Your task to perform on an android device: Search for razer nari on target.com, select the first entry, add it to the cart, then select checkout. Image 0: 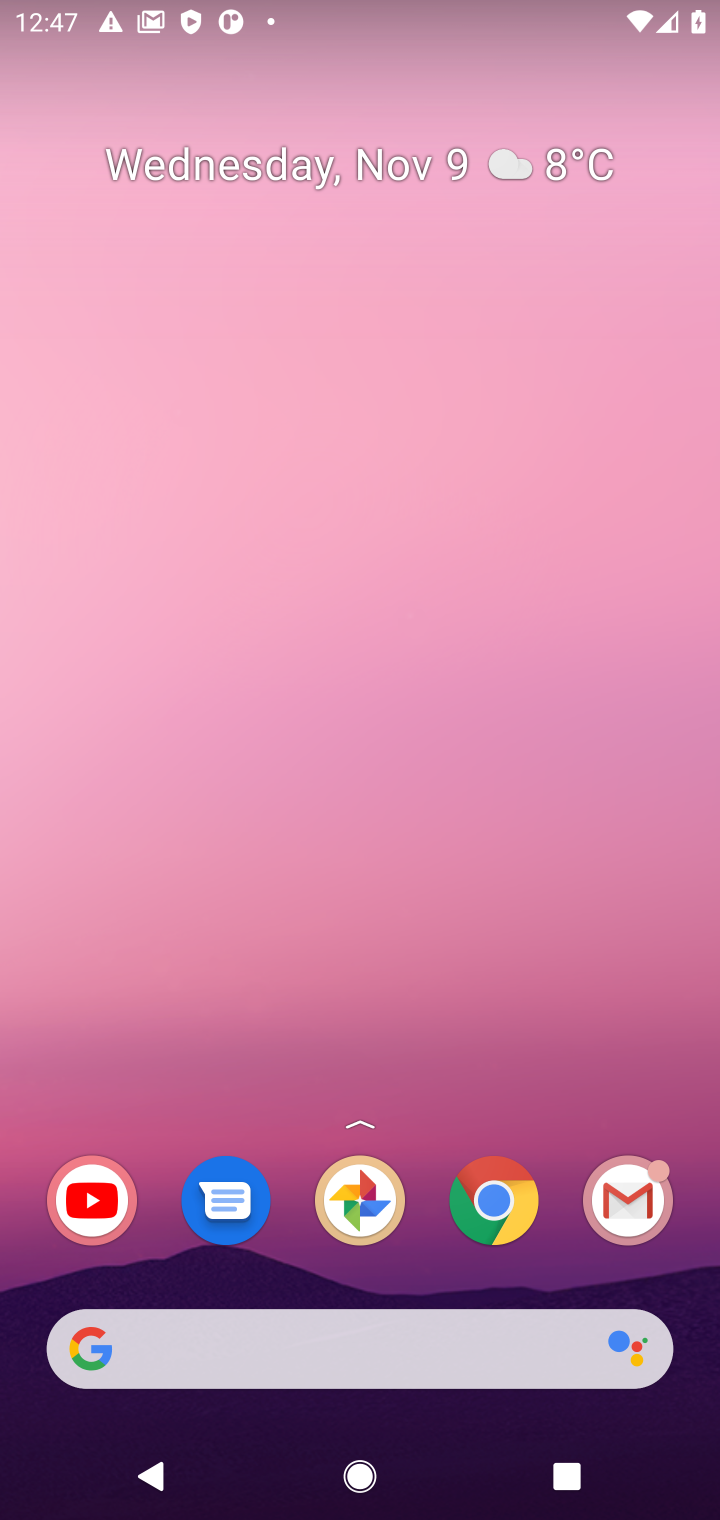
Step 0: click (423, 1364)
Your task to perform on an android device: Search for razer nari on target.com, select the first entry, add it to the cart, then select checkout. Image 1: 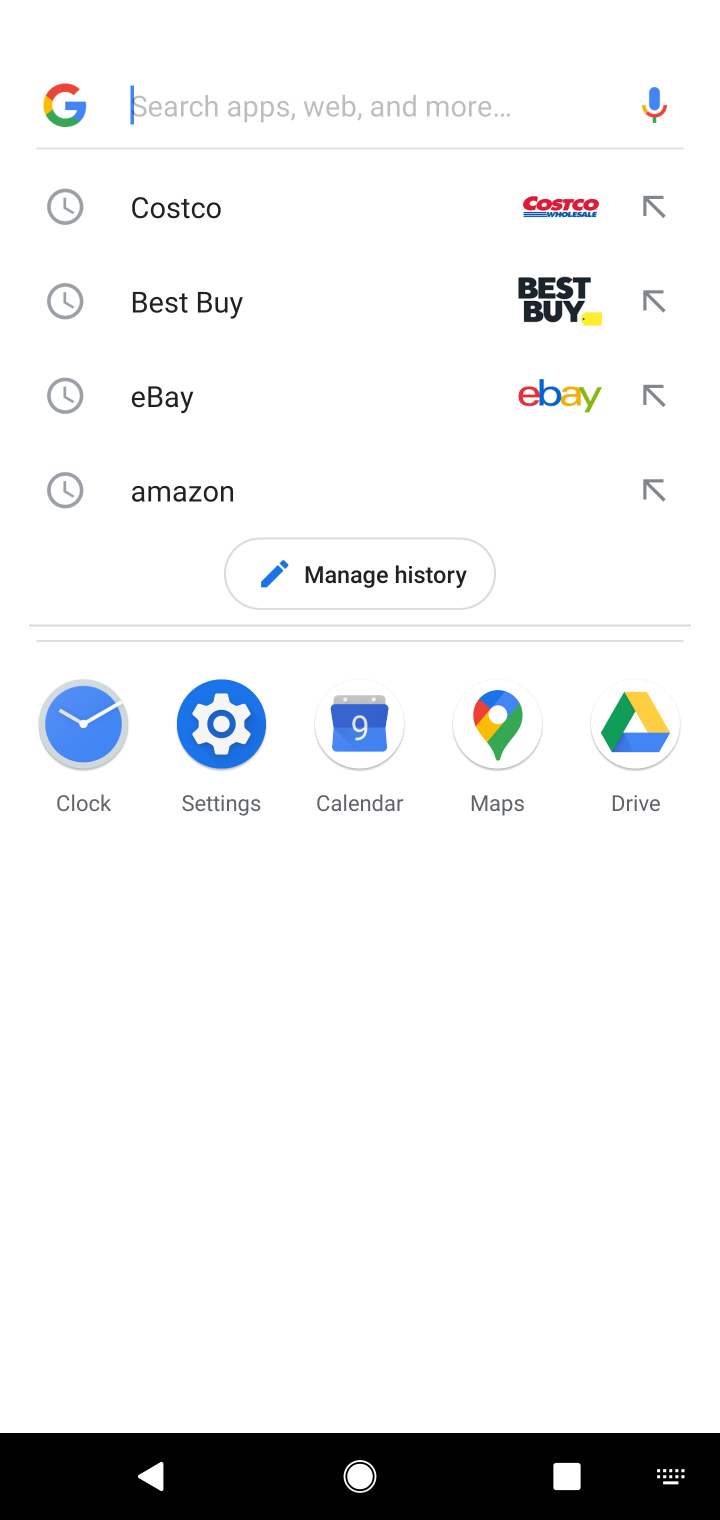
Step 1: type "target"
Your task to perform on an android device: Search for razer nari on target.com, select the first entry, add it to the cart, then select checkout. Image 2: 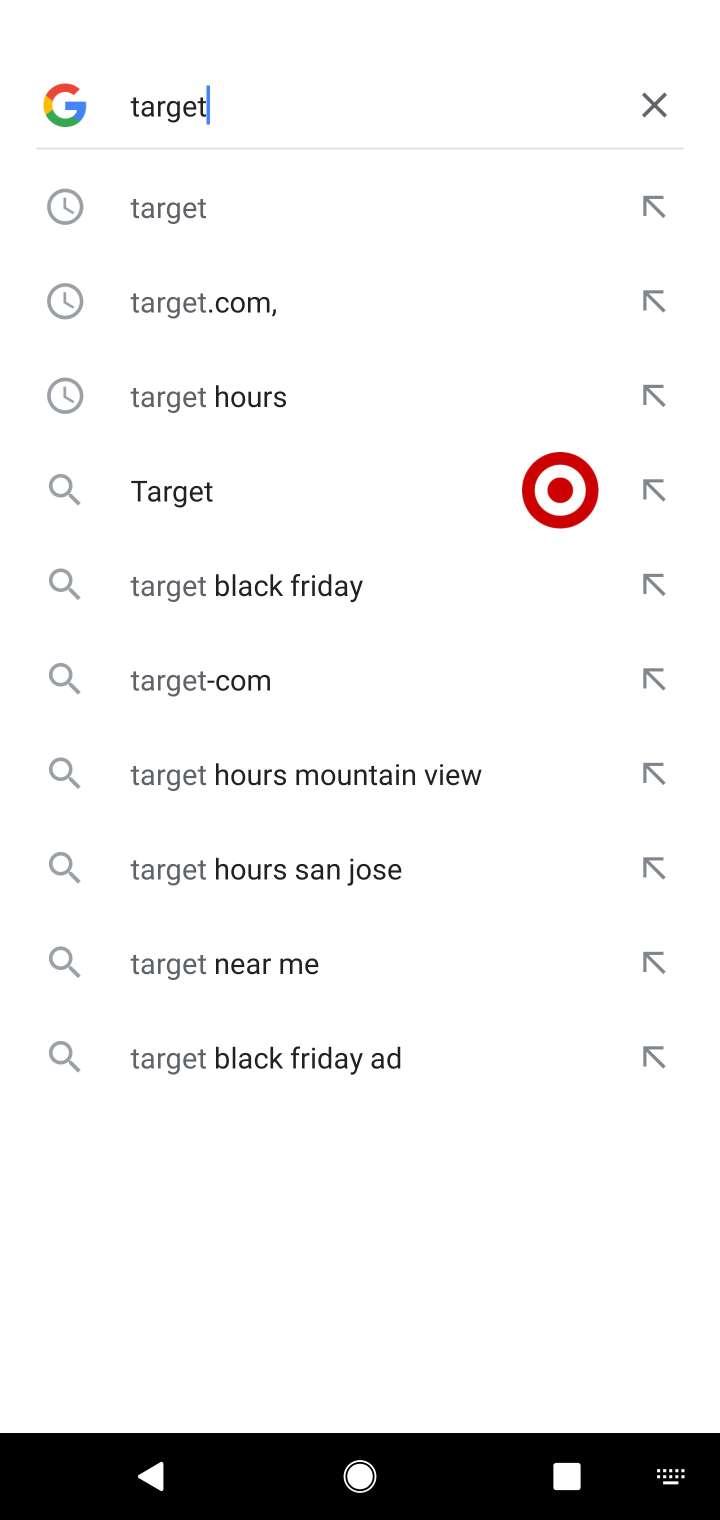
Step 2: click (209, 212)
Your task to perform on an android device: Search for razer nari on target.com, select the first entry, add it to the cart, then select checkout. Image 3: 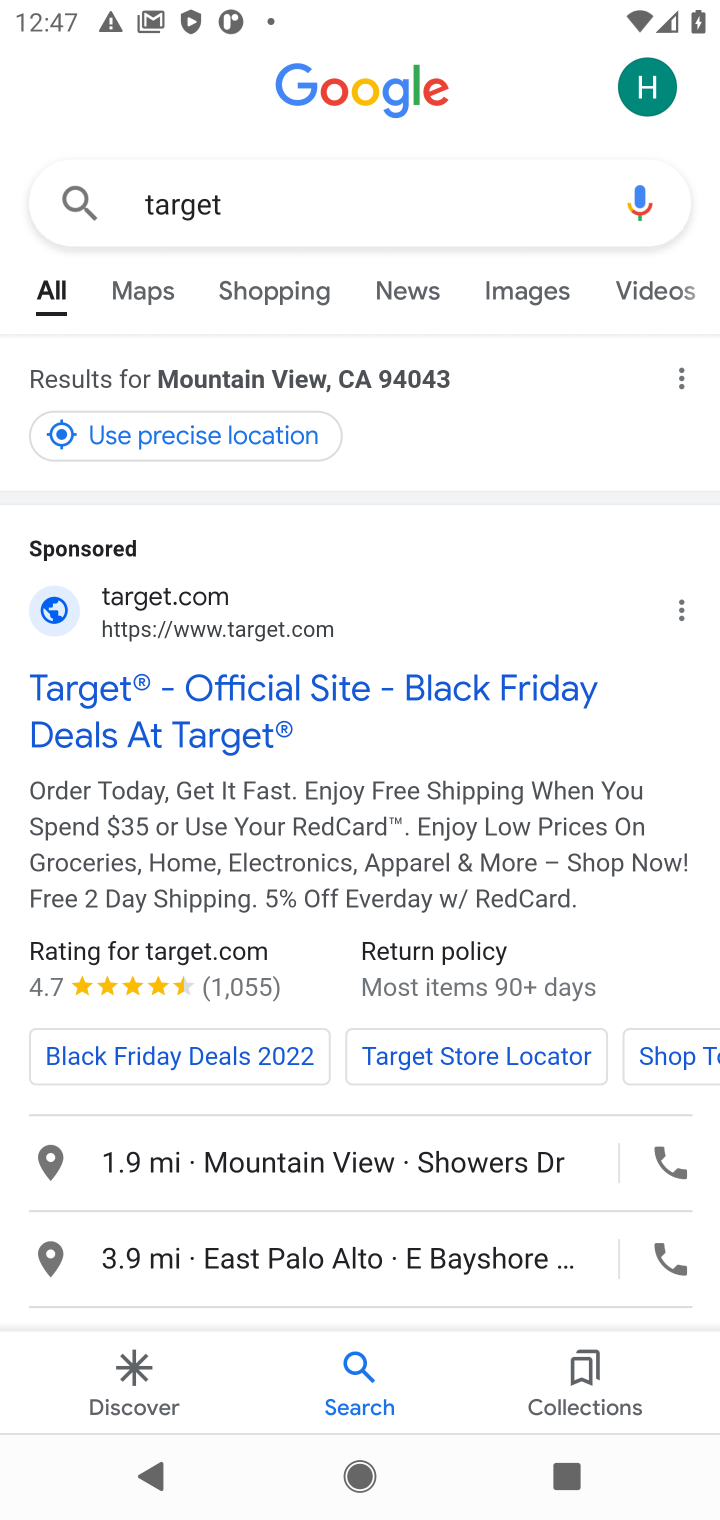
Step 3: click (138, 660)
Your task to perform on an android device: Search for razer nari on target.com, select the first entry, add it to the cart, then select checkout. Image 4: 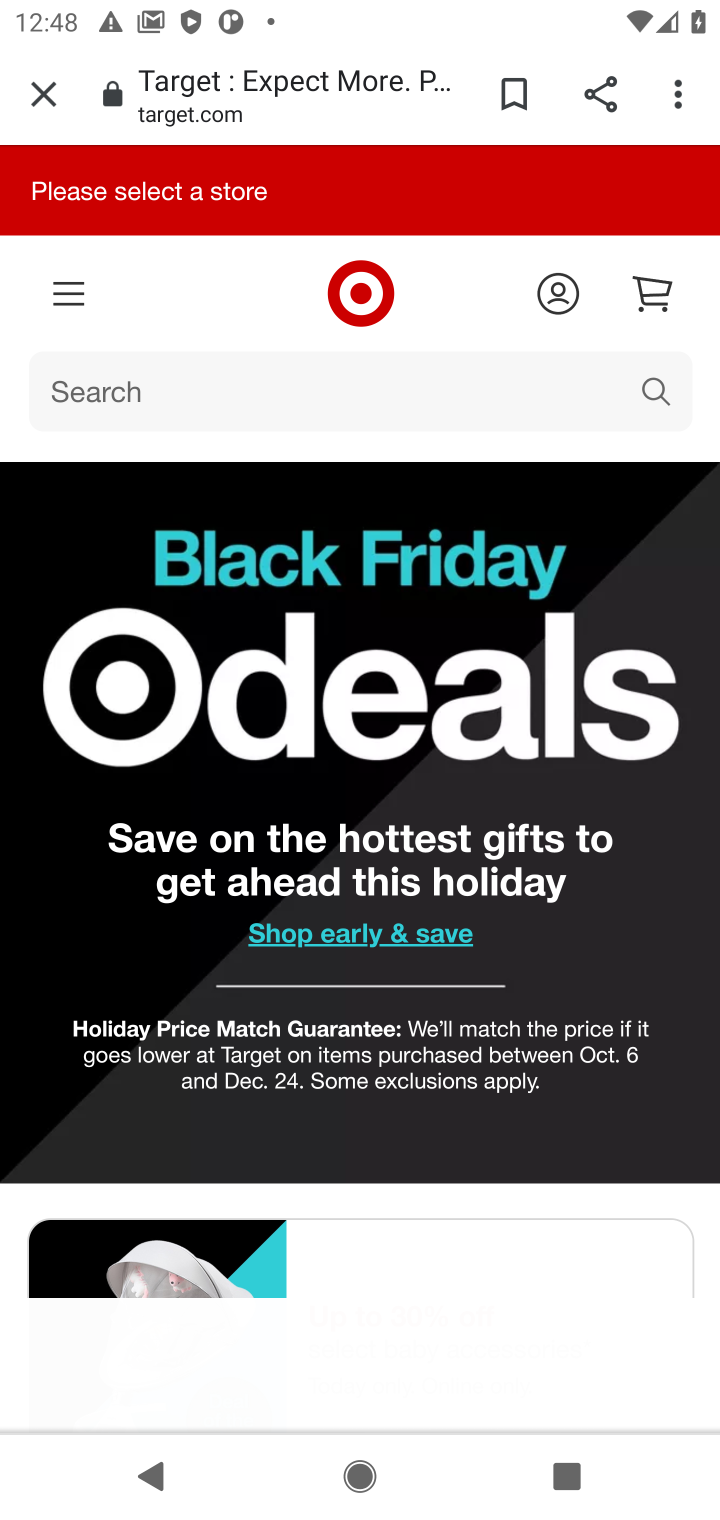
Step 4: click (531, 407)
Your task to perform on an android device: Search for razer nari on target.com, select the first entry, add it to the cart, then select checkout. Image 5: 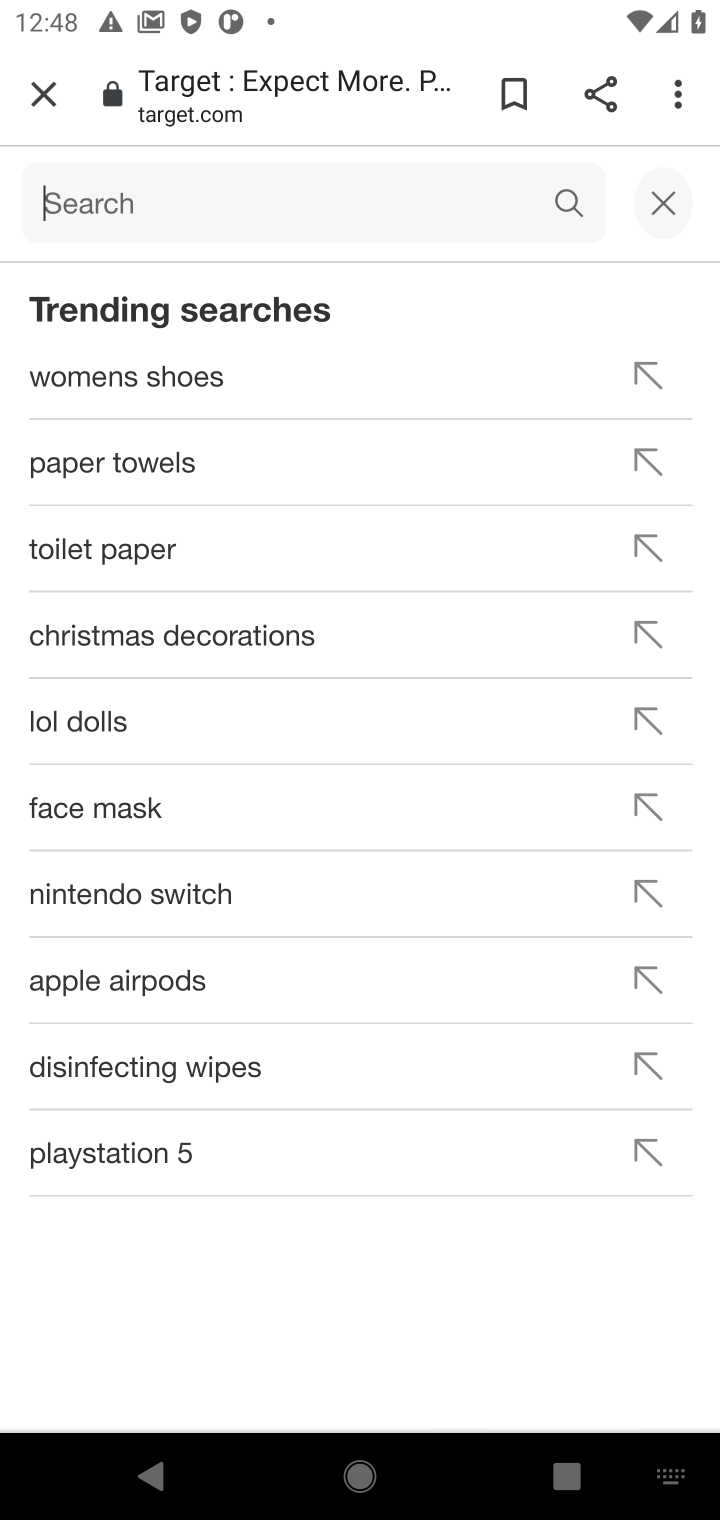
Step 5: task complete